Your task to perform on an android device: Open calendar and show me the first week of next month Image 0: 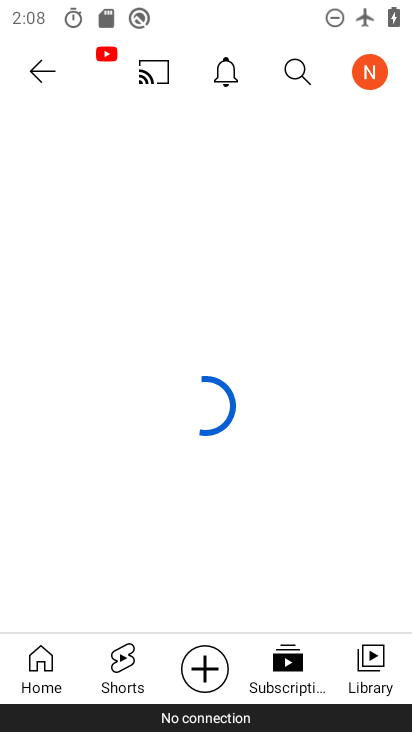
Step 0: press home button
Your task to perform on an android device: Open calendar and show me the first week of next month Image 1: 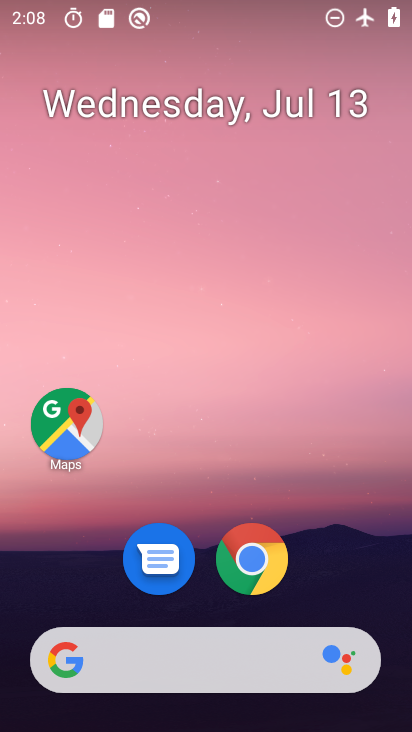
Step 1: drag from (190, 626) to (360, 214)
Your task to perform on an android device: Open calendar and show me the first week of next month Image 2: 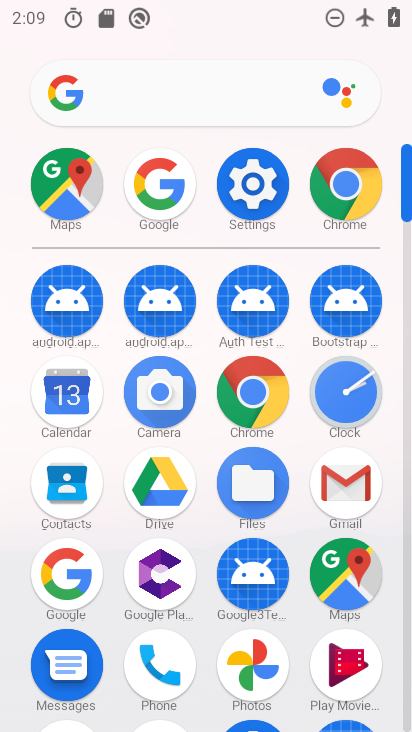
Step 2: click (71, 410)
Your task to perform on an android device: Open calendar and show me the first week of next month Image 3: 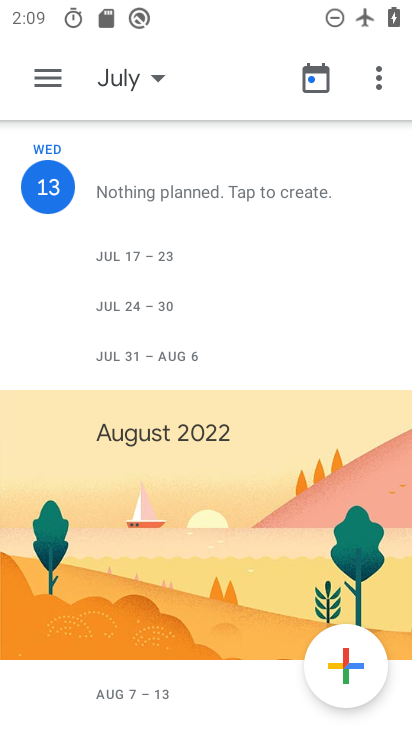
Step 3: click (143, 85)
Your task to perform on an android device: Open calendar and show me the first week of next month Image 4: 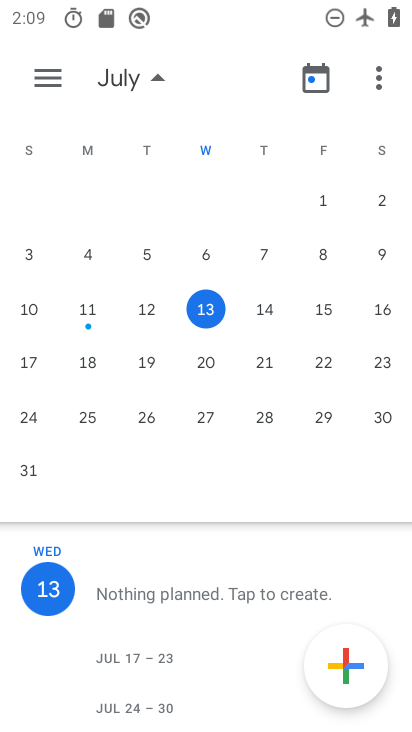
Step 4: drag from (331, 369) to (0, 396)
Your task to perform on an android device: Open calendar and show me the first week of next month Image 5: 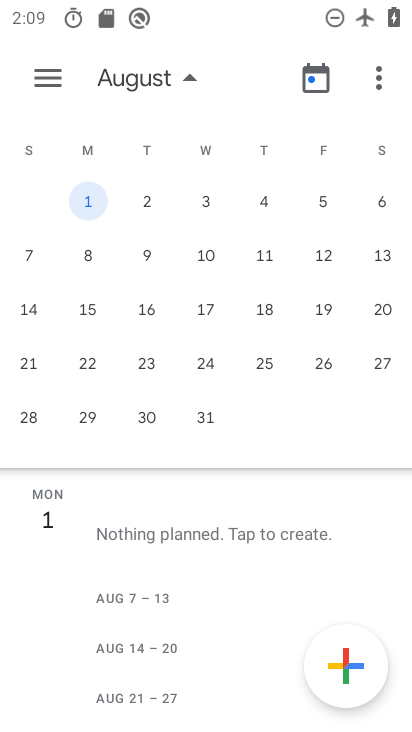
Step 5: click (96, 215)
Your task to perform on an android device: Open calendar and show me the first week of next month Image 6: 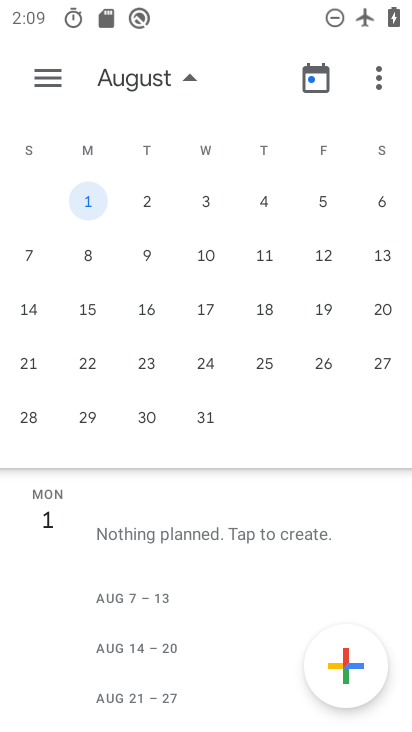
Step 6: click (93, 205)
Your task to perform on an android device: Open calendar and show me the first week of next month Image 7: 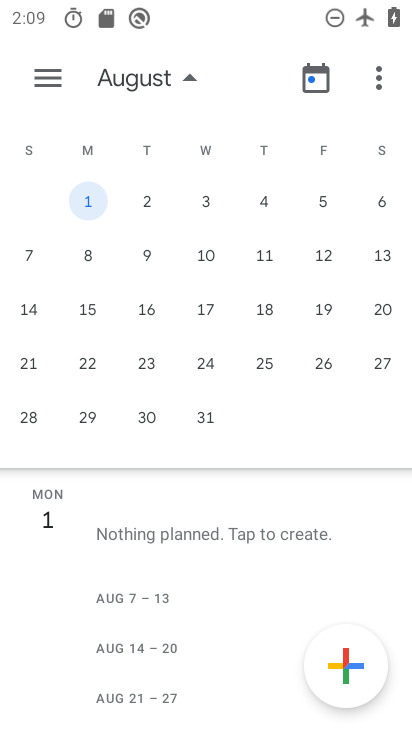
Step 7: task complete